Your task to perform on an android device: Open battery settings Image 0: 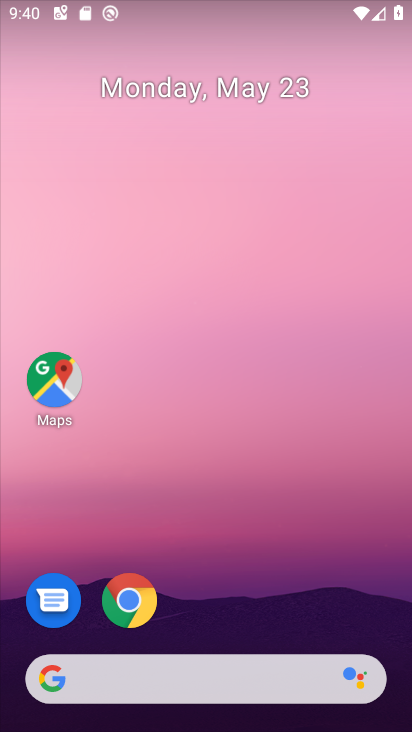
Step 0: drag from (213, 725) to (218, 68)
Your task to perform on an android device: Open battery settings Image 1: 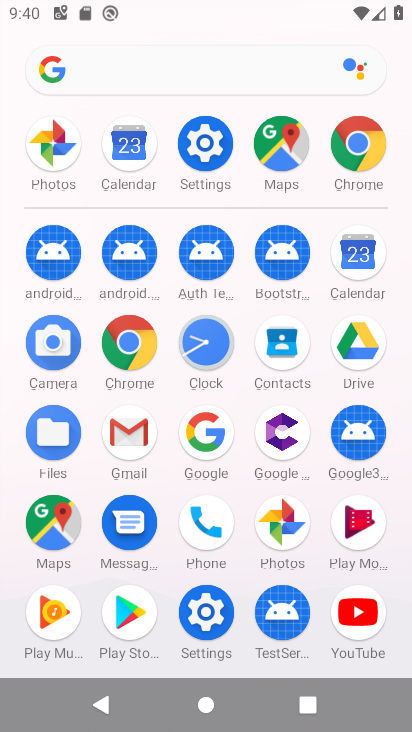
Step 1: click (212, 142)
Your task to perform on an android device: Open battery settings Image 2: 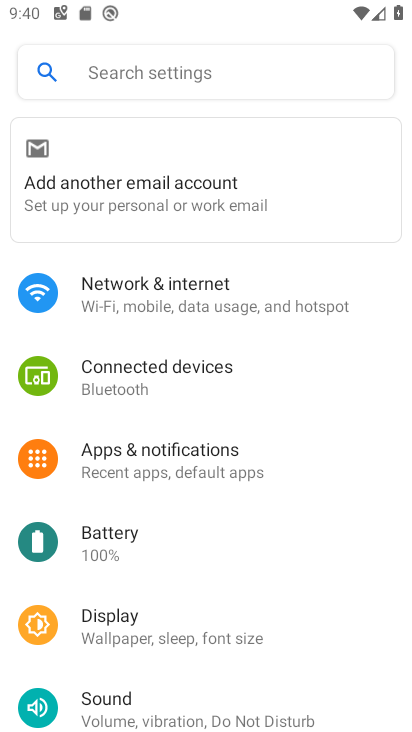
Step 2: click (95, 535)
Your task to perform on an android device: Open battery settings Image 3: 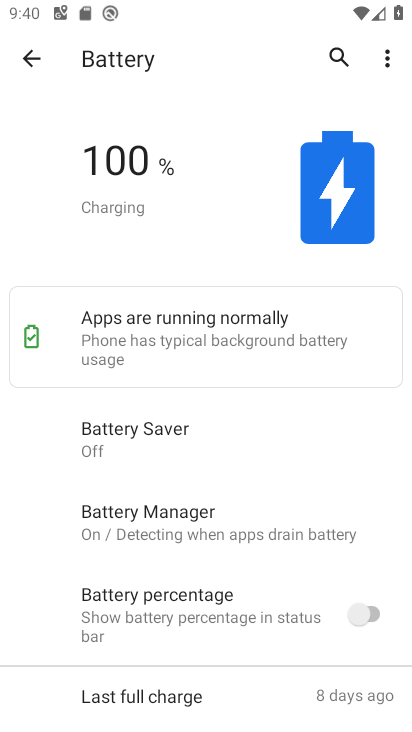
Step 3: task complete